Your task to perform on an android device: make emails show in primary in the gmail app Image 0: 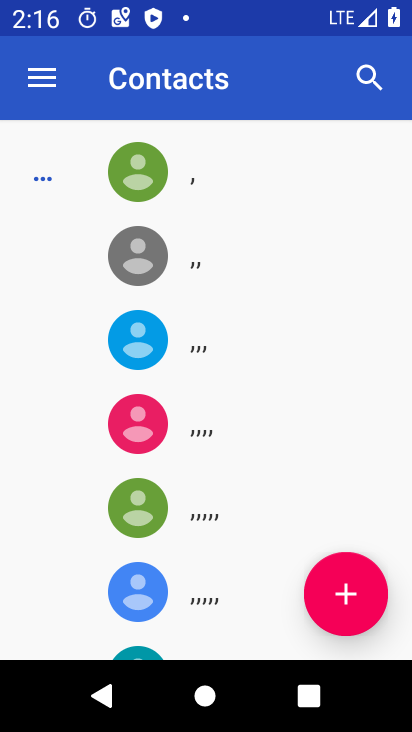
Step 0: press home button
Your task to perform on an android device: make emails show in primary in the gmail app Image 1: 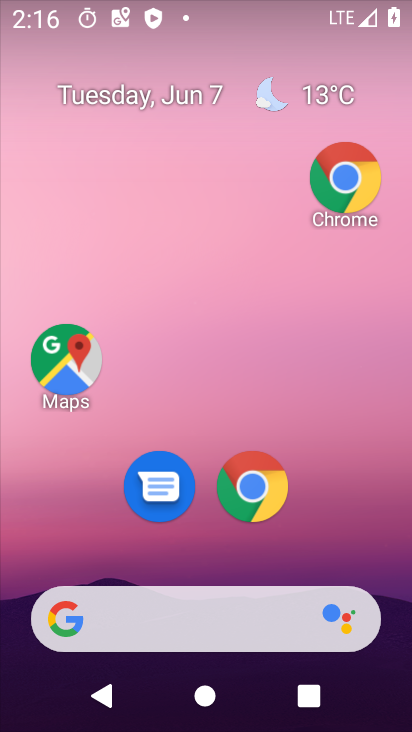
Step 1: click (373, 506)
Your task to perform on an android device: make emails show in primary in the gmail app Image 2: 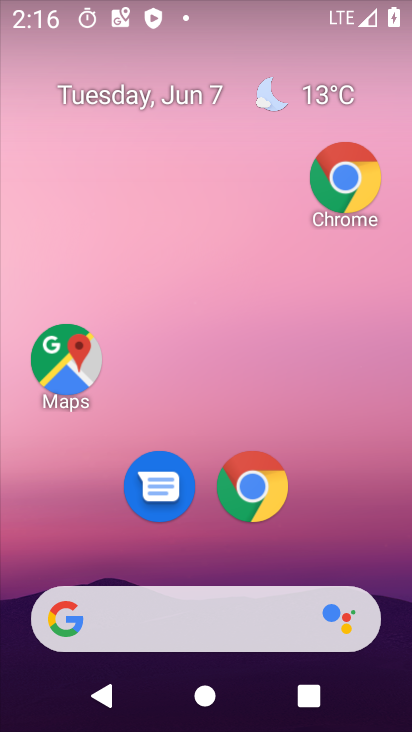
Step 2: click (373, 506)
Your task to perform on an android device: make emails show in primary in the gmail app Image 3: 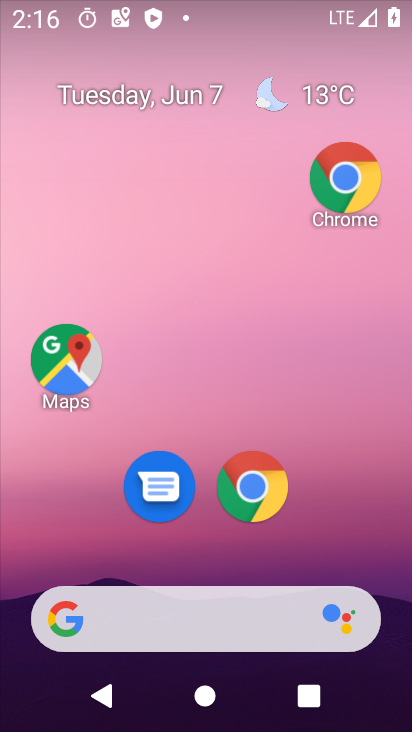
Step 3: drag from (182, 609) to (274, 68)
Your task to perform on an android device: make emails show in primary in the gmail app Image 4: 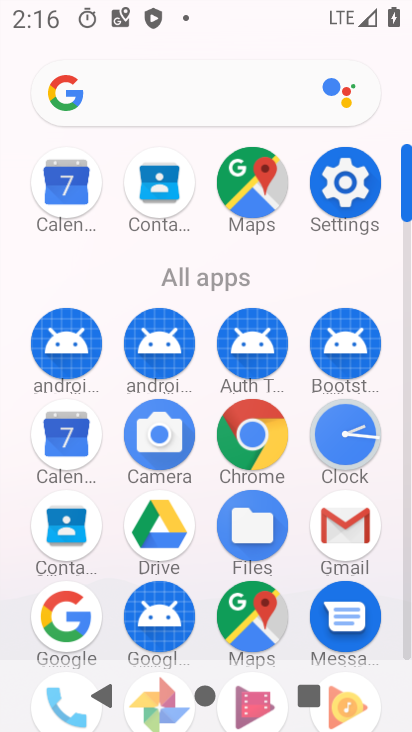
Step 4: click (339, 495)
Your task to perform on an android device: make emails show in primary in the gmail app Image 5: 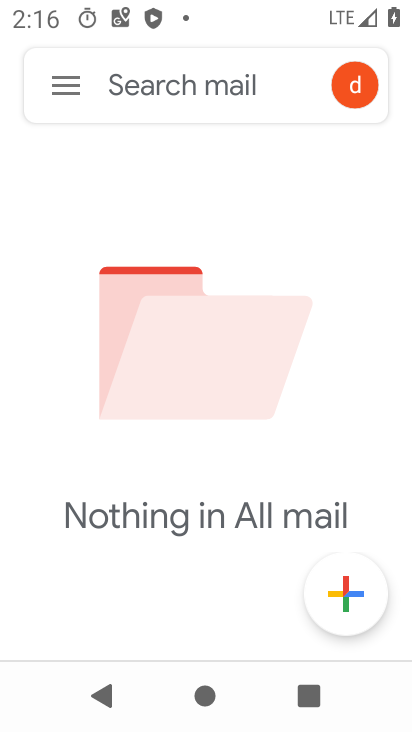
Step 5: click (49, 71)
Your task to perform on an android device: make emails show in primary in the gmail app Image 6: 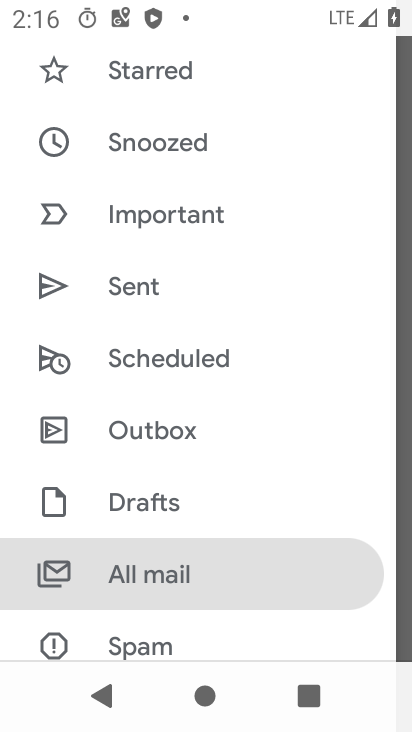
Step 6: drag from (164, 613) to (277, 227)
Your task to perform on an android device: make emails show in primary in the gmail app Image 7: 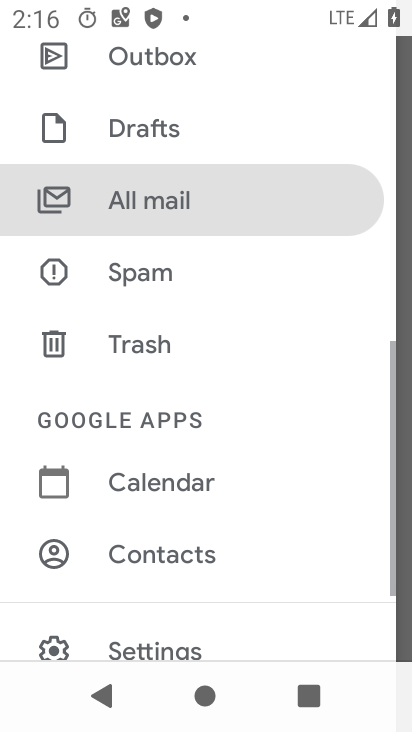
Step 7: drag from (201, 574) to (303, 226)
Your task to perform on an android device: make emails show in primary in the gmail app Image 8: 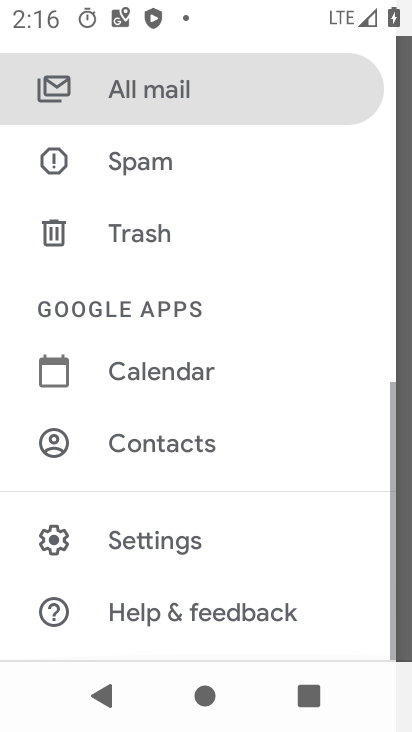
Step 8: click (197, 532)
Your task to perform on an android device: make emails show in primary in the gmail app Image 9: 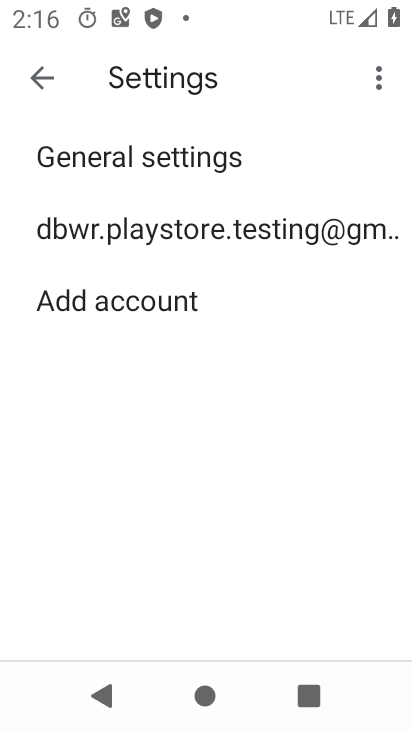
Step 9: click (197, 239)
Your task to perform on an android device: make emails show in primary in the gmail app Image 10: 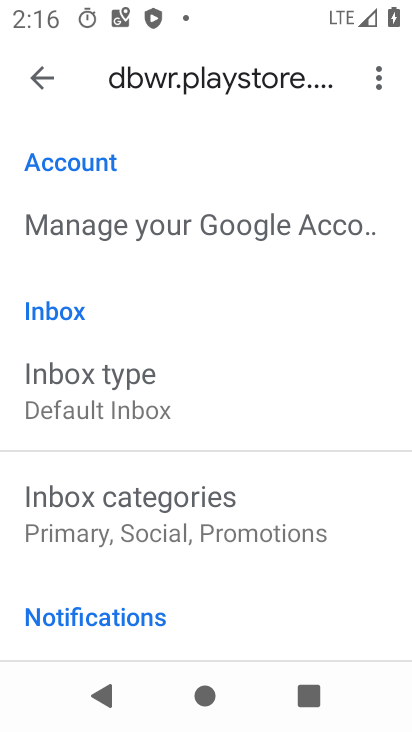
Step 10: click (194, 516)
Your task to perform on an android device: make emails show in primary in the gmail app Image 11: 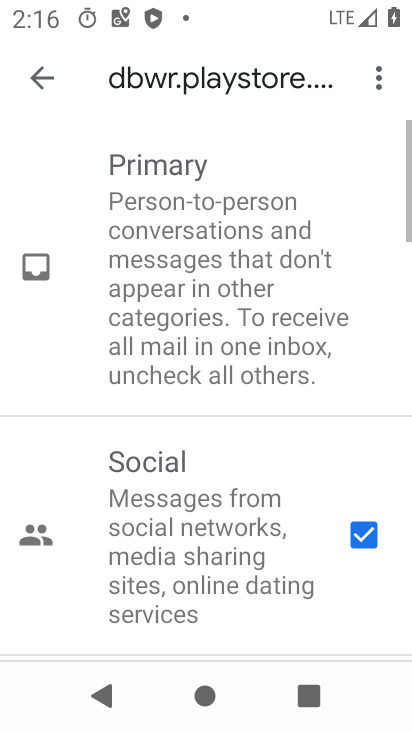
Step 11: drag from (167, 631) to (321, 93)
Your task to perform on an android device: make emails show in primary in the gmail app Image 12: 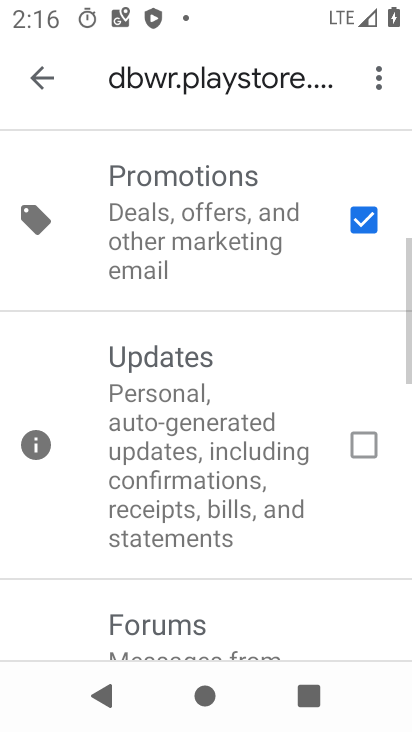
Step 12: drag from (225, 605) to (326, 166)
Your task to perform on an android device: make emails show in primary in the gmail app Image 13: 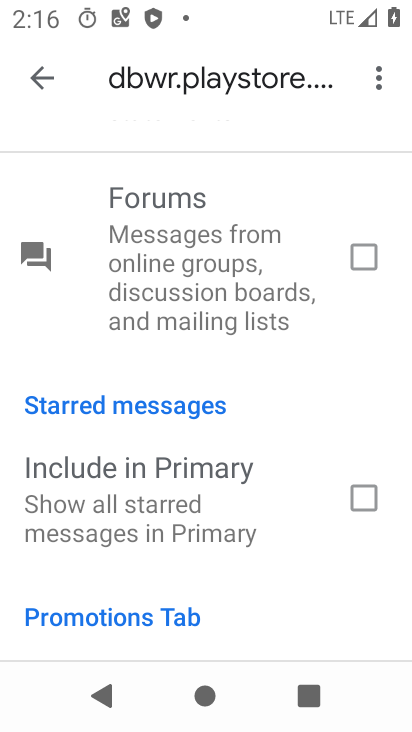
Step 13: click (360, 519)
Your task to perform on an android device: make emails show in primary in the gmail app Image 14: 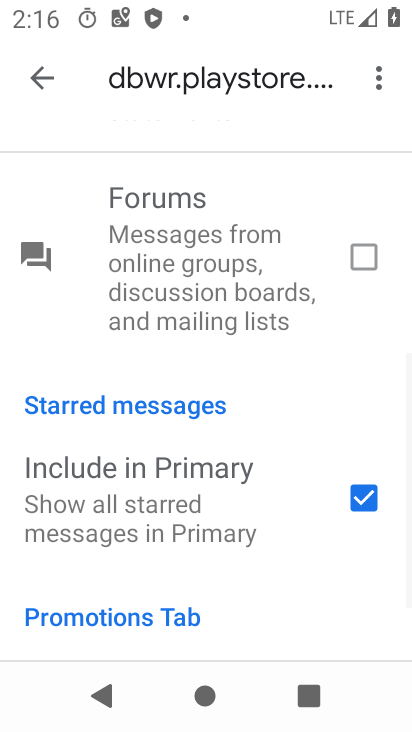
Step 14: task complete